Your task to perform on an android device: Open the phone app and click the voicemail tab. Image 0: 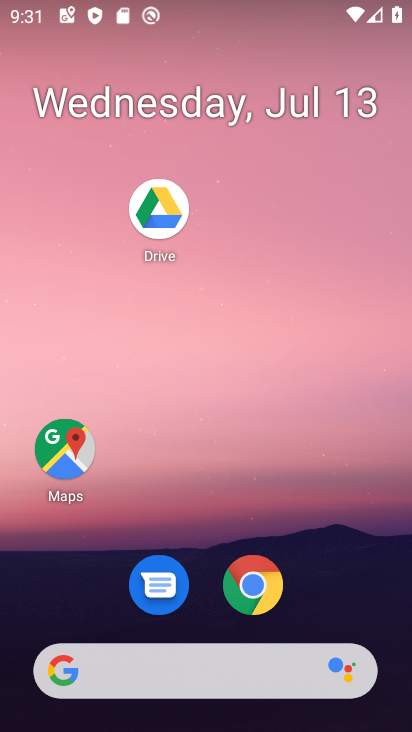
Step 0: drag from (178, 664) to (298, 98)
Your task to perform on an android device: Open the phone app and click the voicemail tab. Image 1: 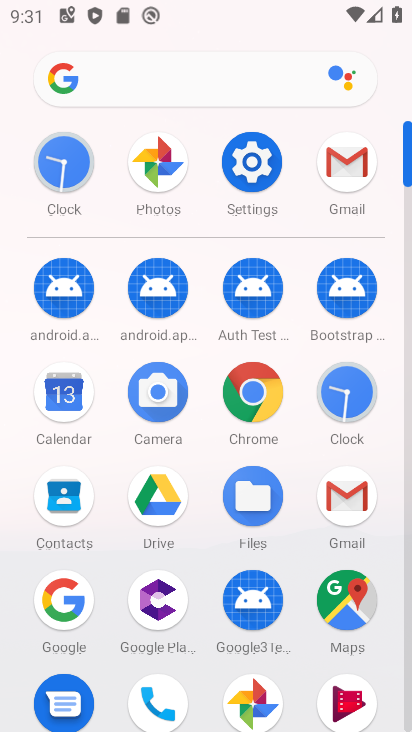
Step 1: drag from (214, 645) to (329, 238)
Your task to perform on an android device: Open the phone app and click the voicemail tab. Image 2: 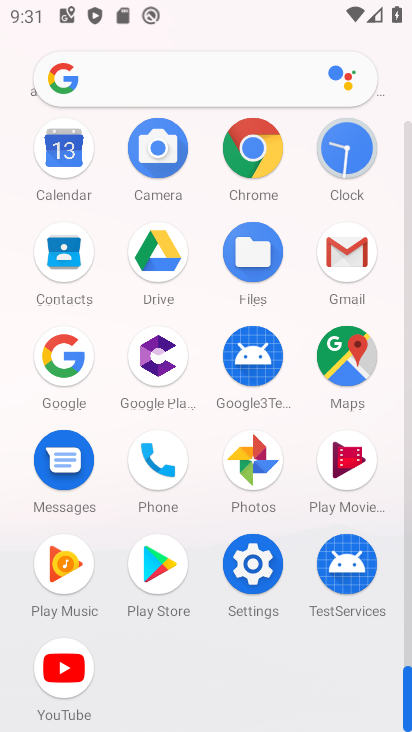
Step 2: click (158, 461)
Your task to perform on an android device: Open the phone app and click the voicemail tab. Image 3: 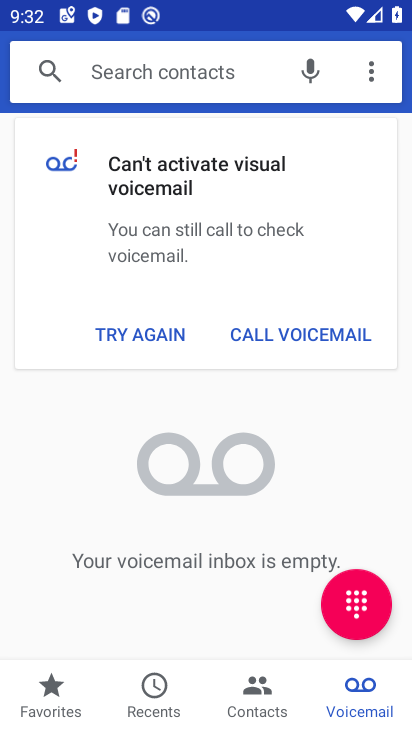
Step 3: task complete